Your task to perform on an android device: allow notifications from all sites in the chrome app Image 0: 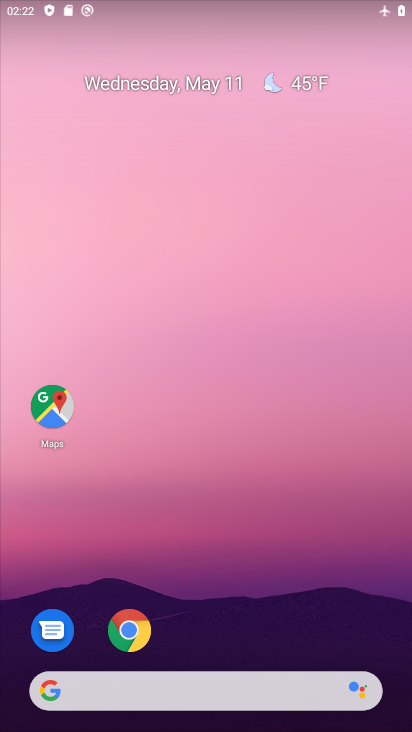
Step 0: click (127, 624)
Your task to perform on an android device: allow notifications from all sites in the chrome app Image 1: 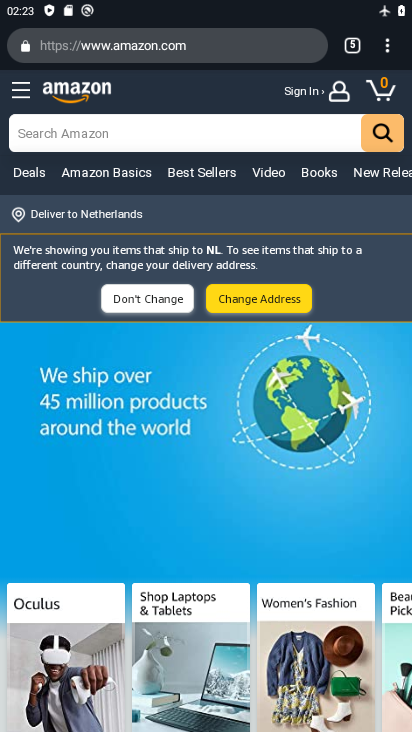
Step 1: click (386, 51)
Your task to perform on an android device: allow notifications from all sites in the chrome app Image 2: 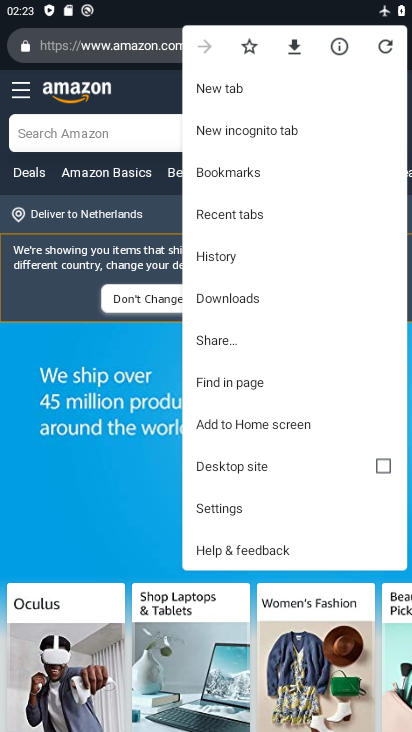
Step 2: click (226, 504)
Your task to perform on an android device: allow notifications from all sites in the chrome app Image 3: 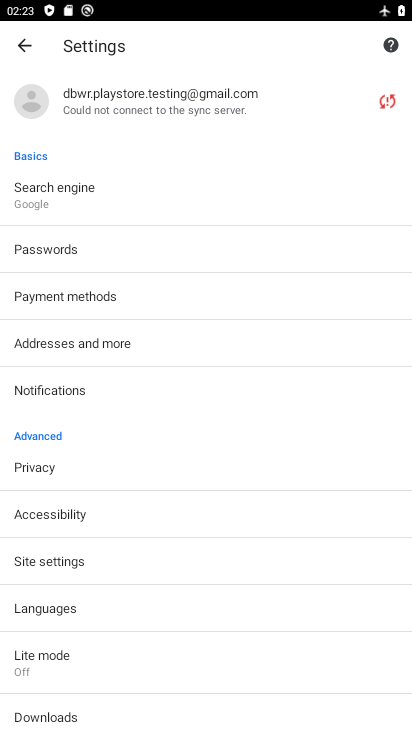
Step 3: click (62, 560)
Your task to perform on an android device: allow notifications from all sites in the chrome app Image 4: 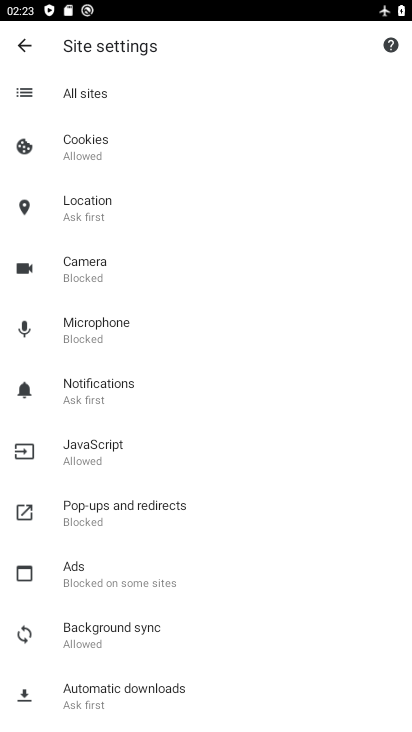
Step 4: click (134, 383)
Your task to perform on an android device: allow notifications from all sites in the chrome app Image 5: 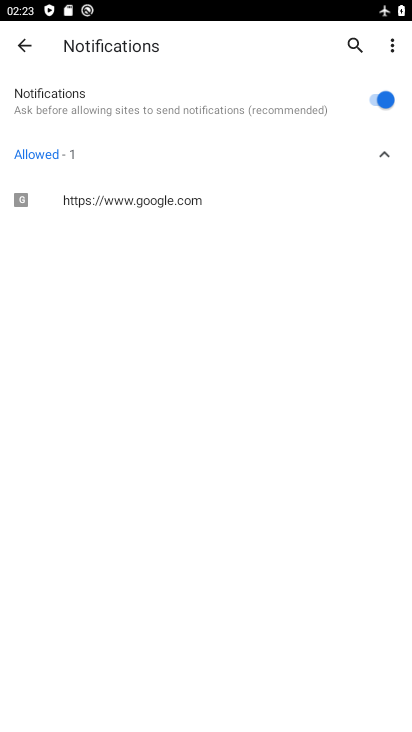
Step 5: task complete